Your task to perform on an android device: Open the map Image 0: 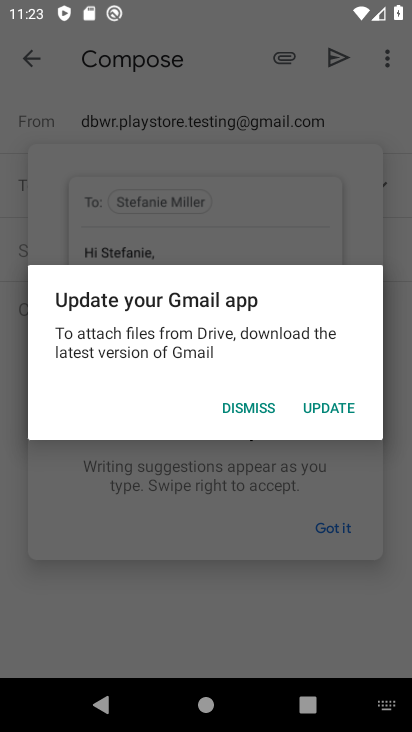
Step 0: click (236, 415)
Your task to perform on an android device: Open the map Image 1: 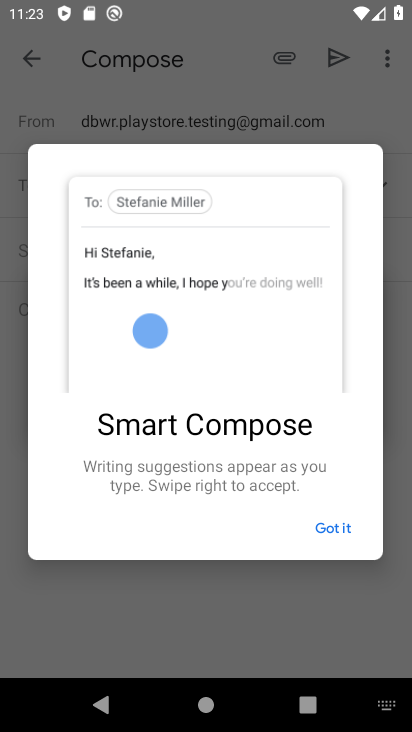
Step 1: click (328, 543)
Your task to perform on an android device: Open the map Image 2: 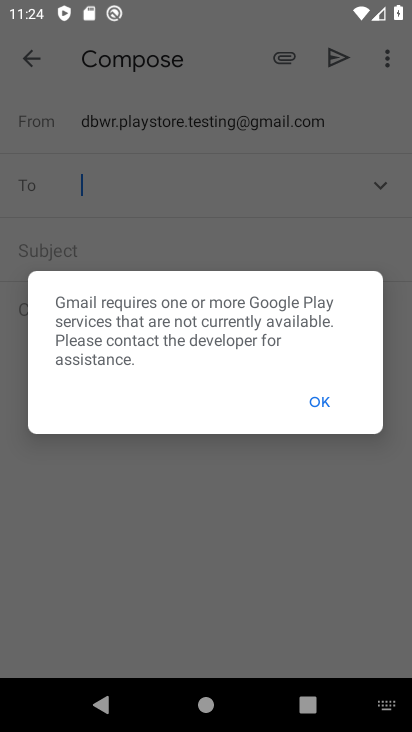
Step 2: click (319, 402)
Your task to perform on an android device: Open the map Image 3: 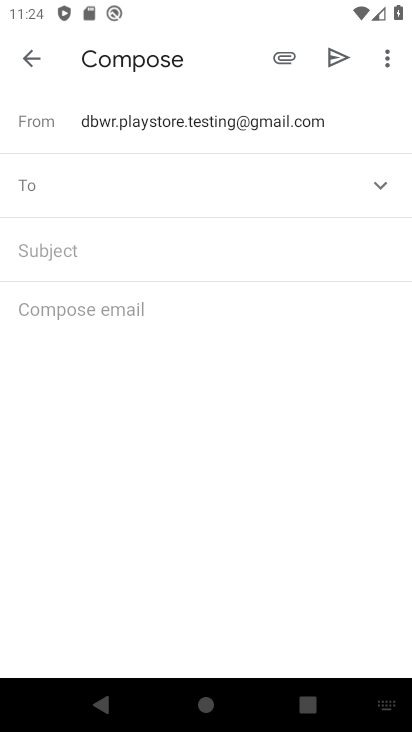
Step 3: press home button
Your task to perform on an android device: Open the map Image 4: 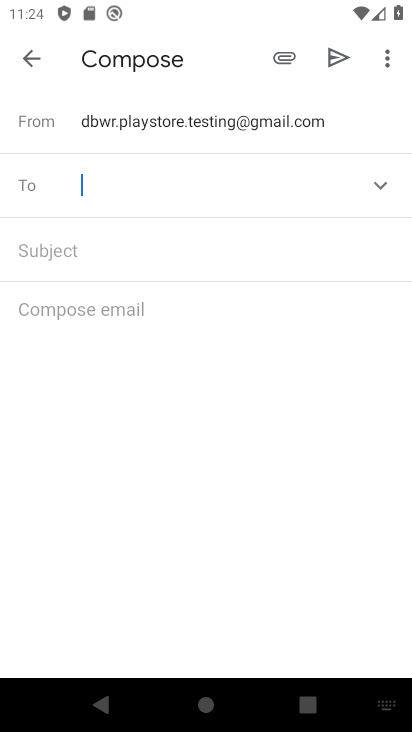
Step 4: drag from (231, 546) to (233, 25)
Your task to perform on an android device: Open the map Image 5: 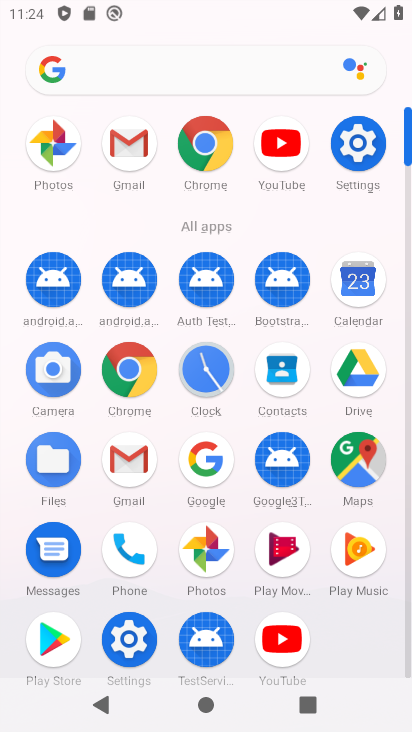
Step 5: click (367, 480)
Your task to perform on an android device: Open the map Image 6: 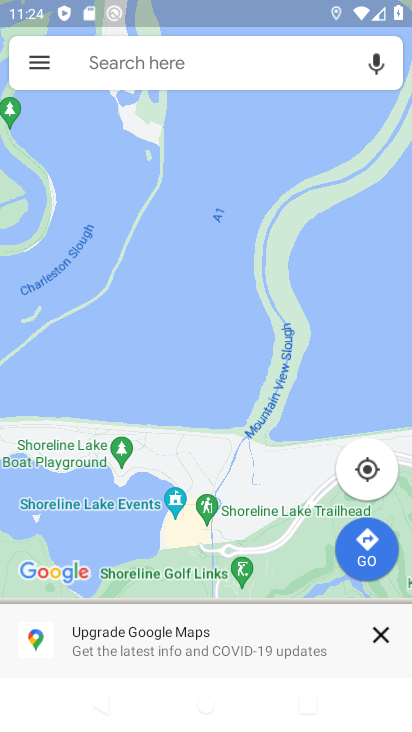
Step 6: task complete